Your task to perform on an android device: turn off notifications in google photos Image 0: 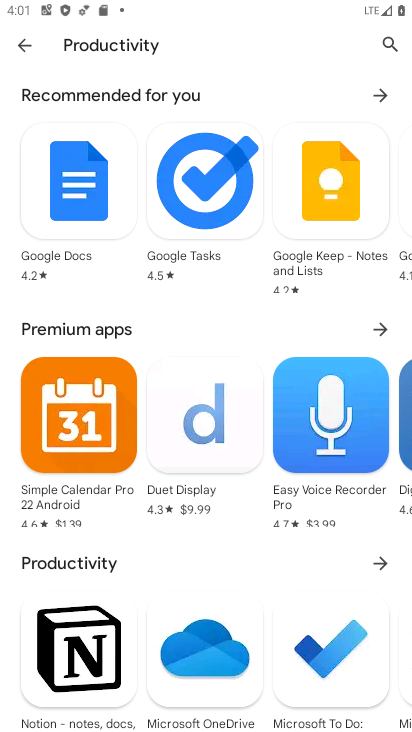
Step 0: press home button
Your task to perform on an android device: turn off notifications in google photos Image 1: 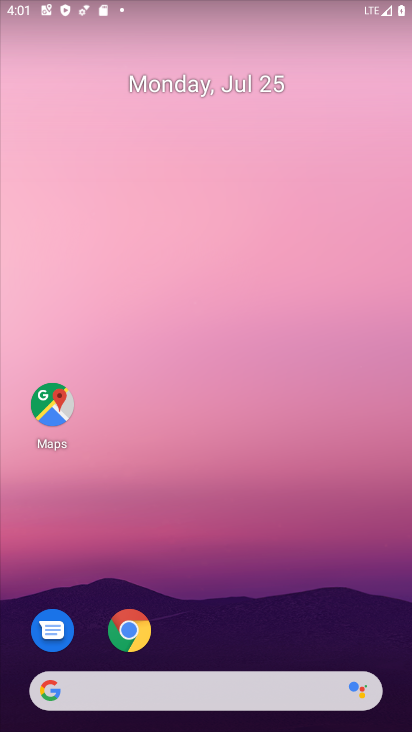
Step 1: drag from (215, 637) to (264, 47)
Your task to perform on an android device: turn off notifications in google photos Image 2: 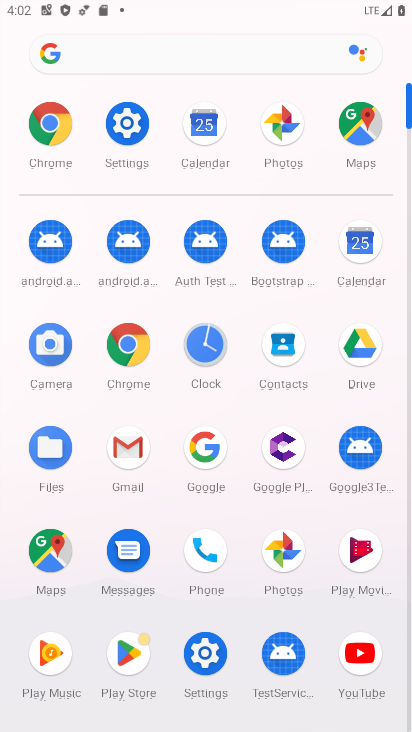
Step 2: click (291, 554)
Your task to perform on an android device: turn off notifications in google photos Image 3: 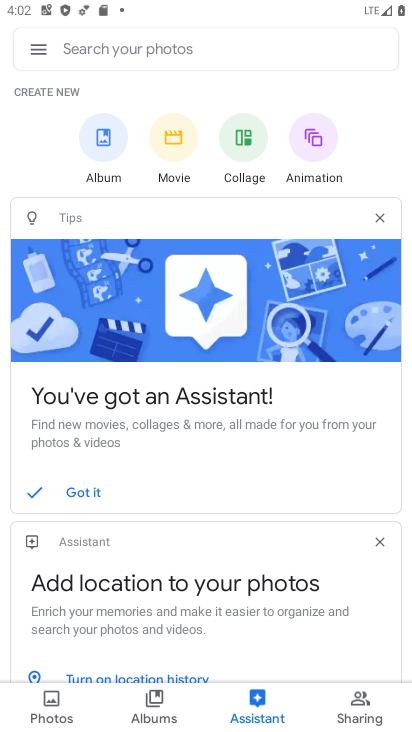
Step 3: click (43, 50)
Your task to perform on an android device: turn off notifications in google photos Image 4: 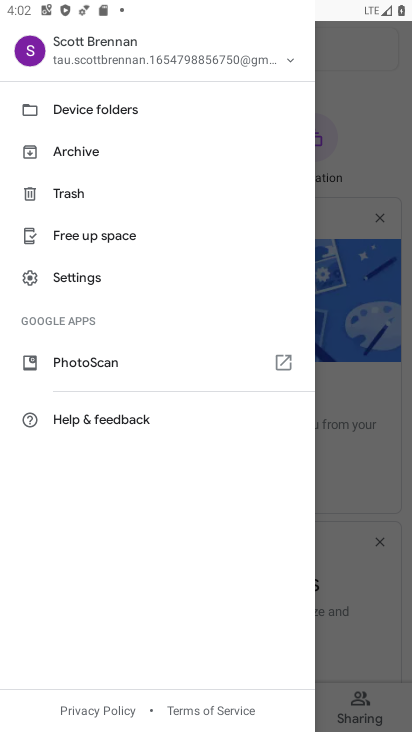
Step 4: click (87, 287)
Your task to perform on an android device: turn off notifications in google photos Image 5: 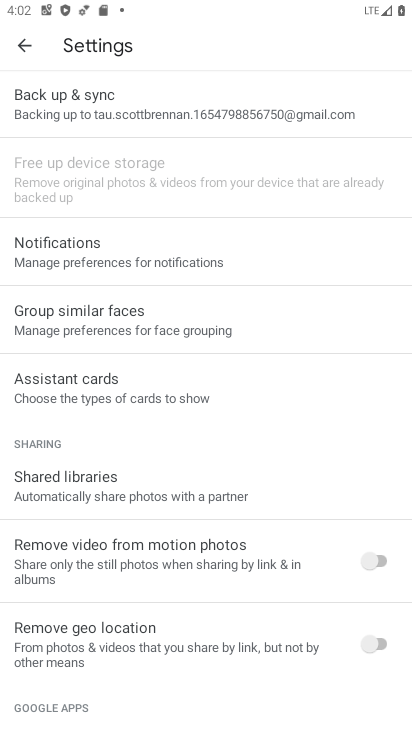
Step 5: click (116, 251)
Your task to perform on an android device: turn off notifications in google photos Image 6: 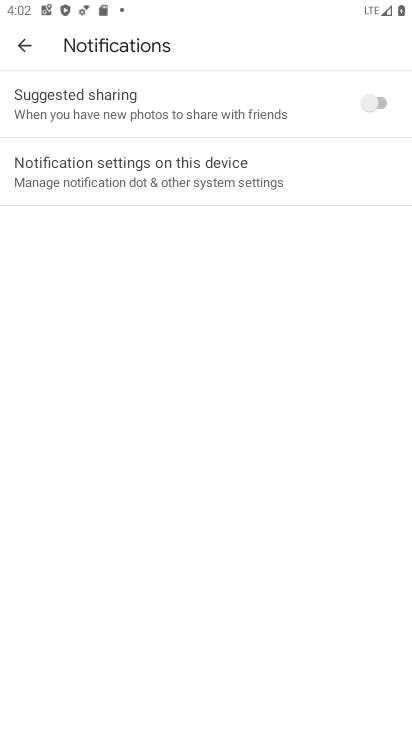
Step 6: click (126, 174)
Your task to perform on an android device: turn off notifications in google photos Image 7: 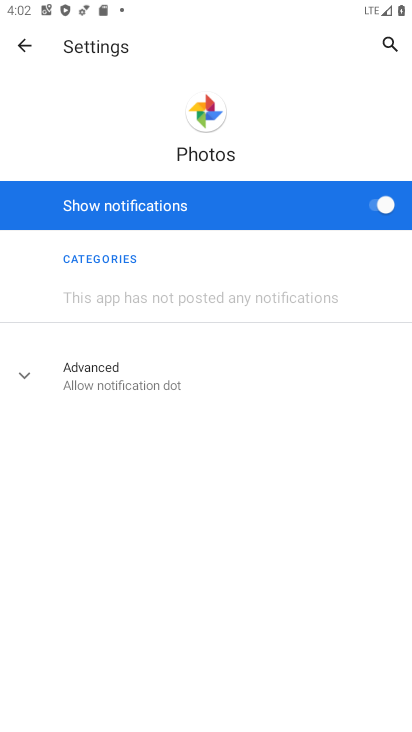
Step 7: click (348, 208)
Your task to perform on an android device: turn off notifications in google photos Image 8: 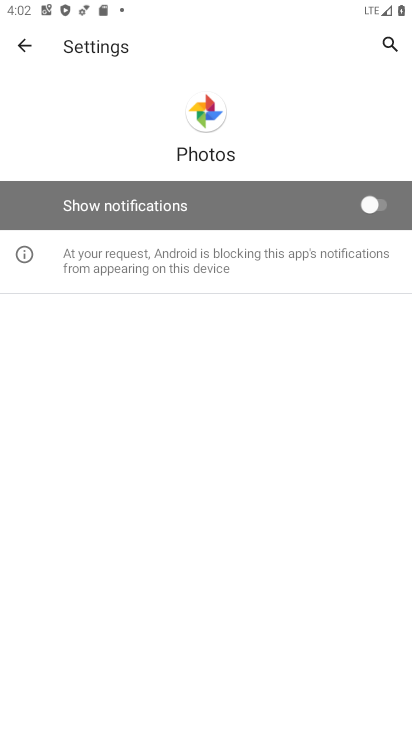
Step 8: task complete